Your task to perform on an android device: open app "Flipkart Online Shopping App" (install if not already installed) Image 0: 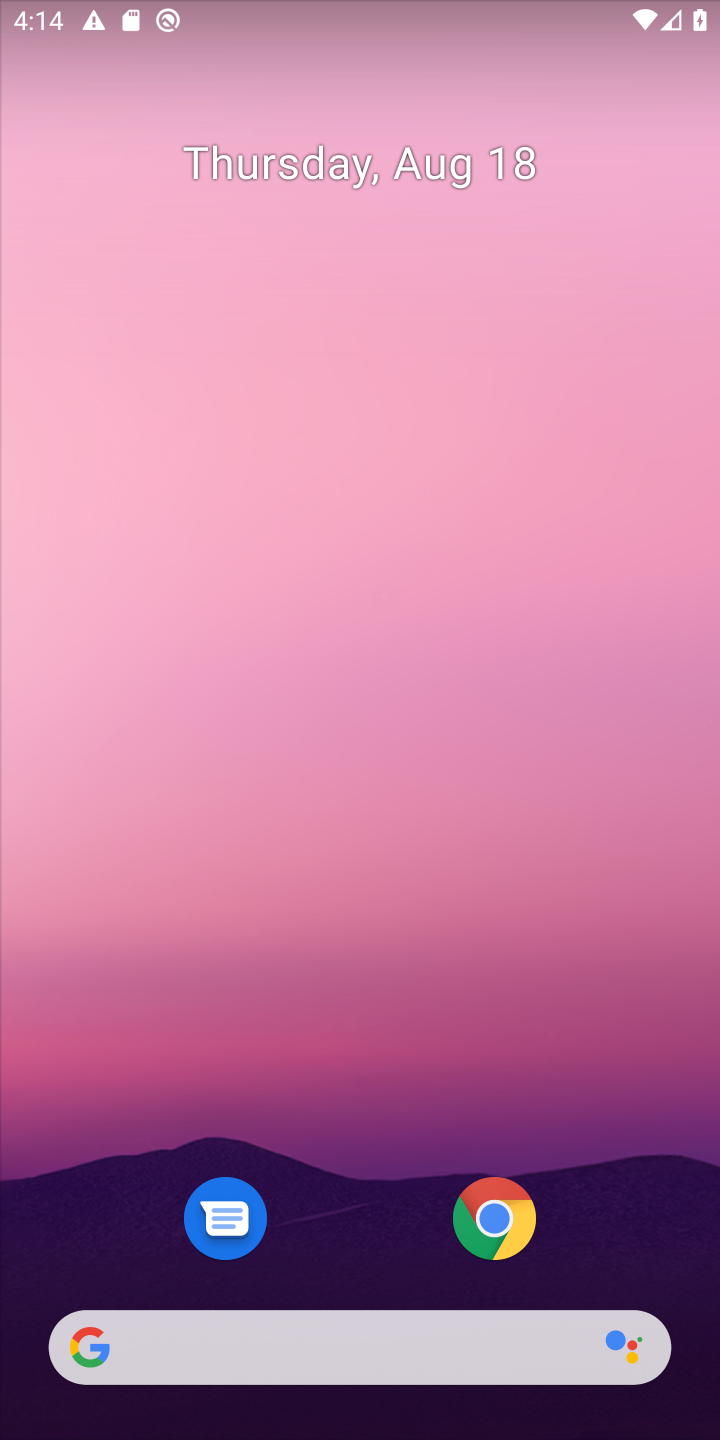
Step 0: drag from (332, 839) to (358, 334)
Your task to perform on an android device: open app "Flipkart Online Shopping App" (install if not already installed) Image 1: 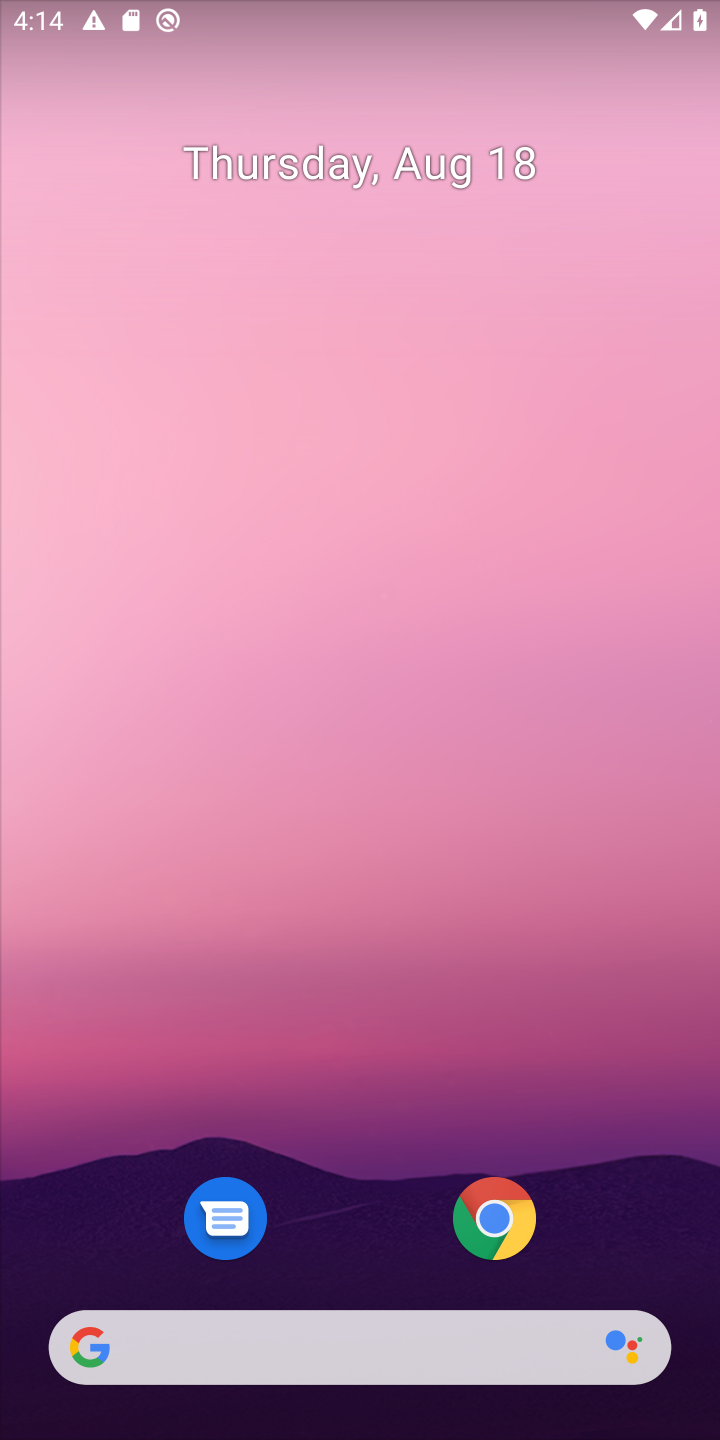
Step 1: drag from (402, 1169) to (425, 370)
Your task to perform on an android device: open app "Flipkart Online Shopping App" (install if not already installed) Image 2: 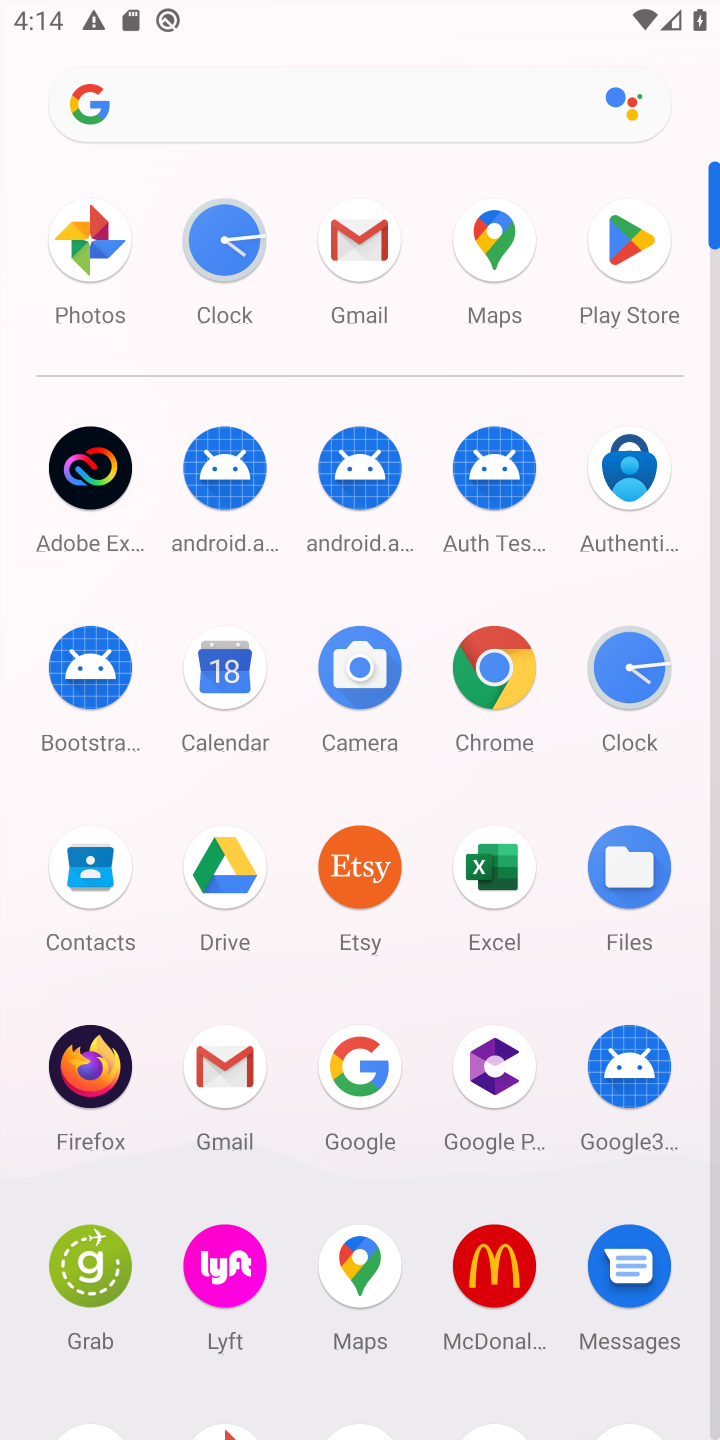
Step 2: click (621, 264)
Your task to perform on an android device: open app "Flipkart Online Shopping App" (install if not already installed) Image 3: 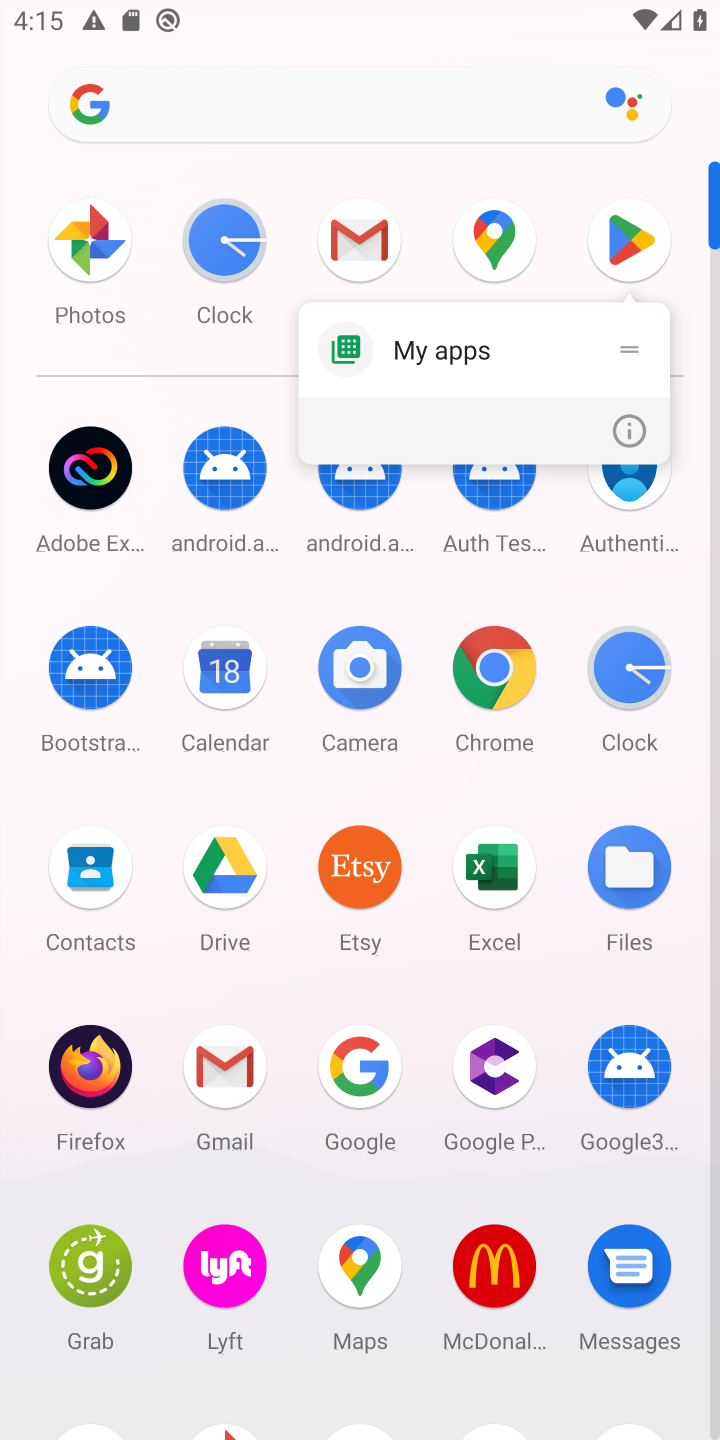
Step 3: click (623, 252)
Your task to perform on an android device: open app "Flipkart Online Shopping App" (install if not already installed) Image 4: 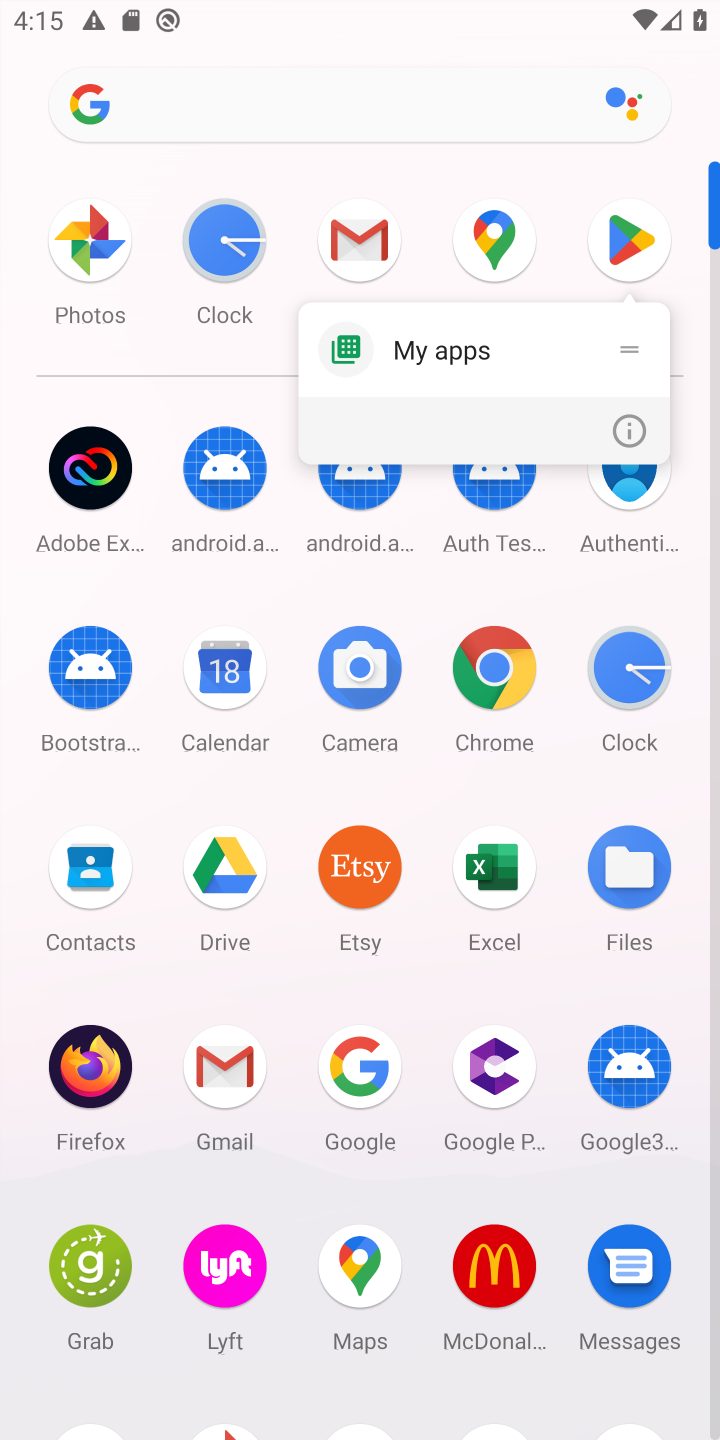
Step 4: click (623, 252)
Your task to perform on an android device: open app "Flipkart Online Shopping App" (install if not already installed) Image 5: 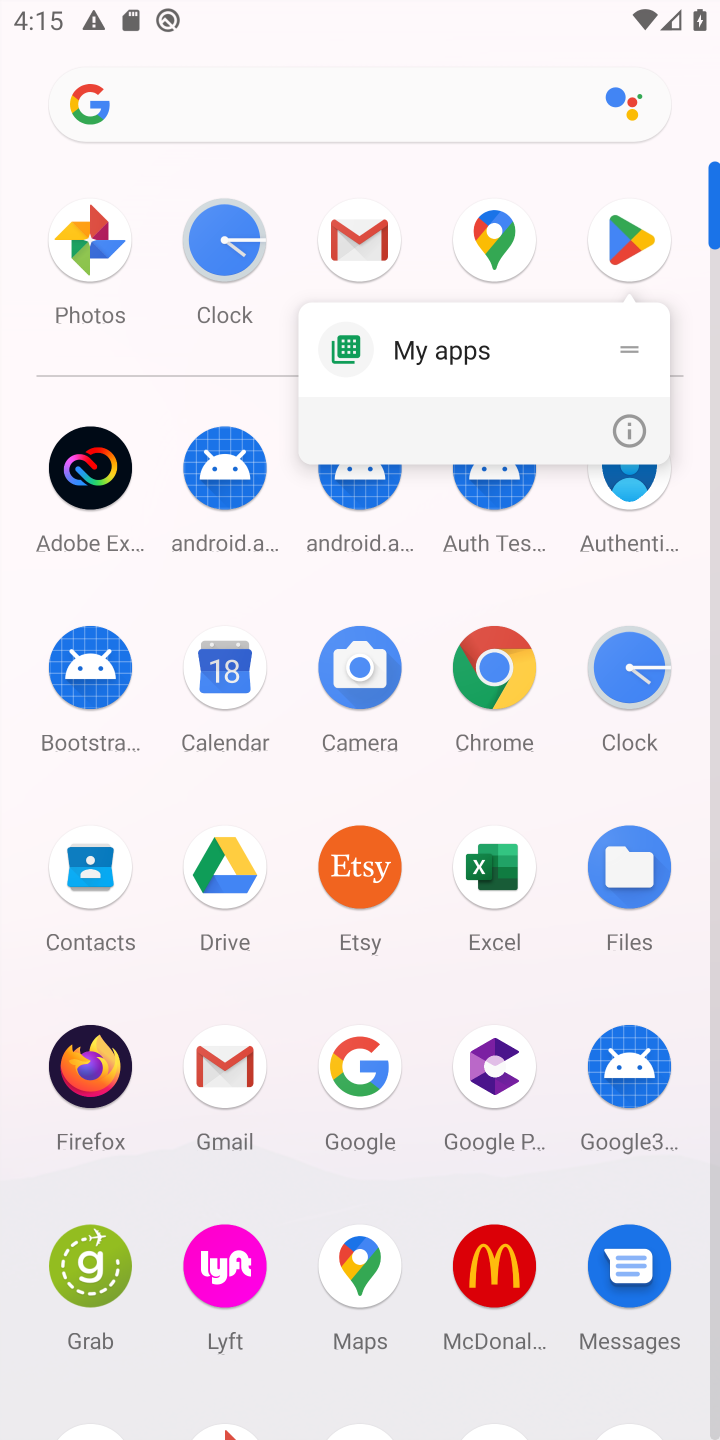
Step 5: click (644, 226)
Your task to perform on an android device: open app "Flipkart Online Shopping App" (install if not already installed) Image 6: 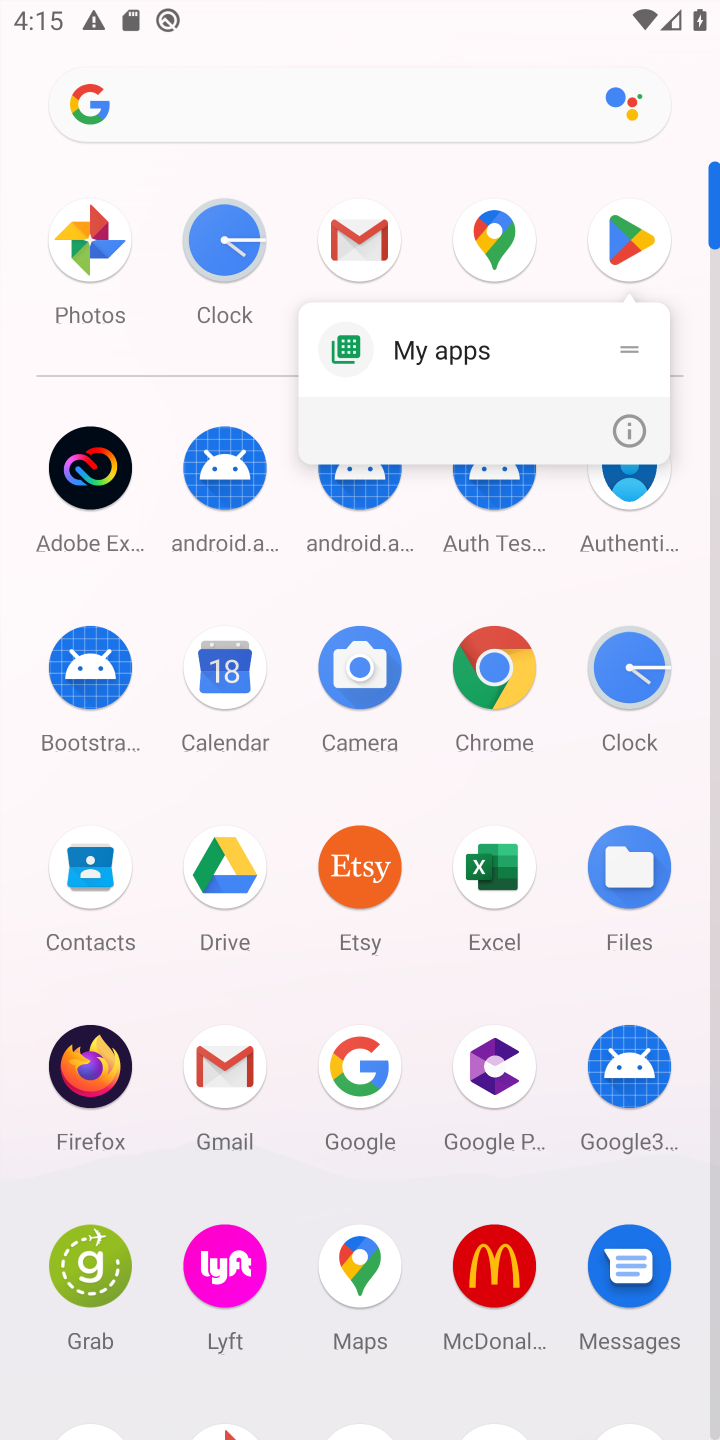
Step 6: click (644, 226)
Your task to perform on an android device: open app "Flipkart Online Shopping App" (install if not already installed) Image 7: 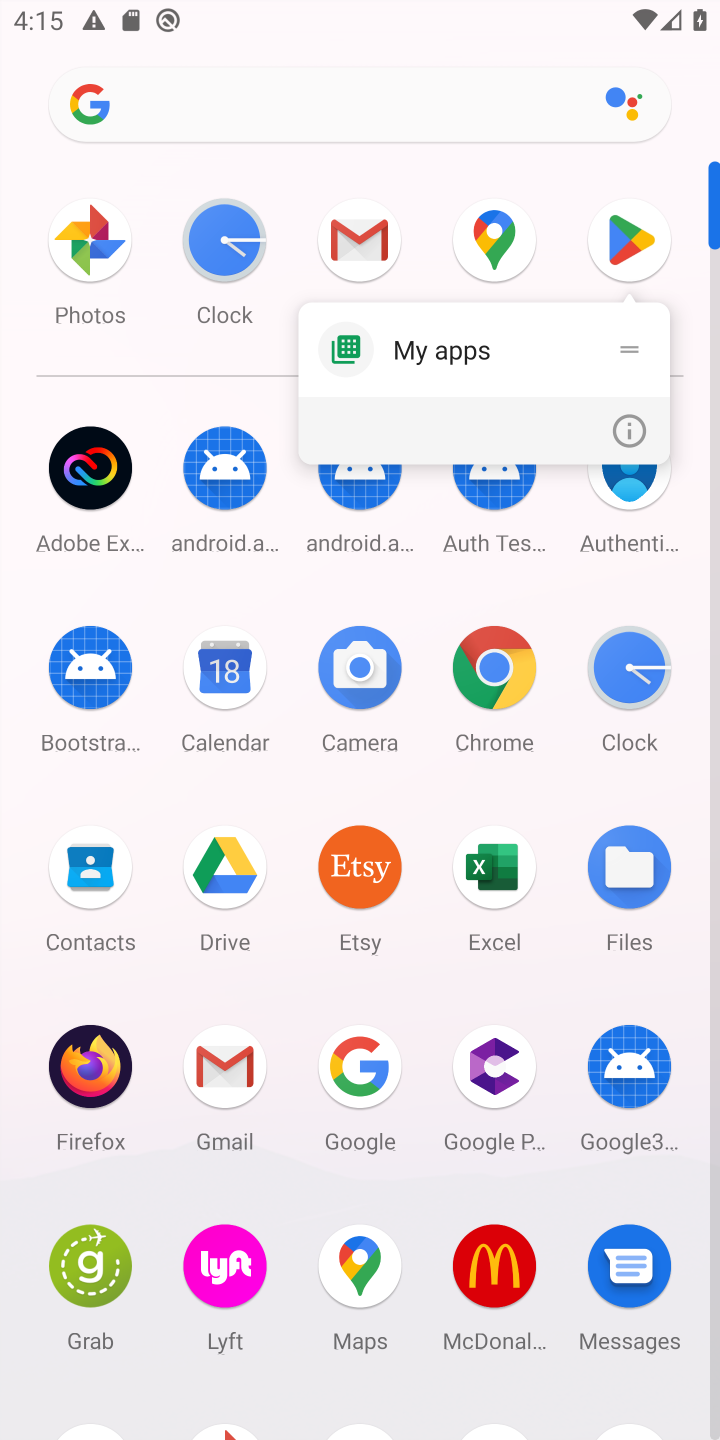
Step 7: click (635, 236)
Your task to perform on an android device: open app "Flipkart Online Shopping App" (install if not already installed) Image 8: 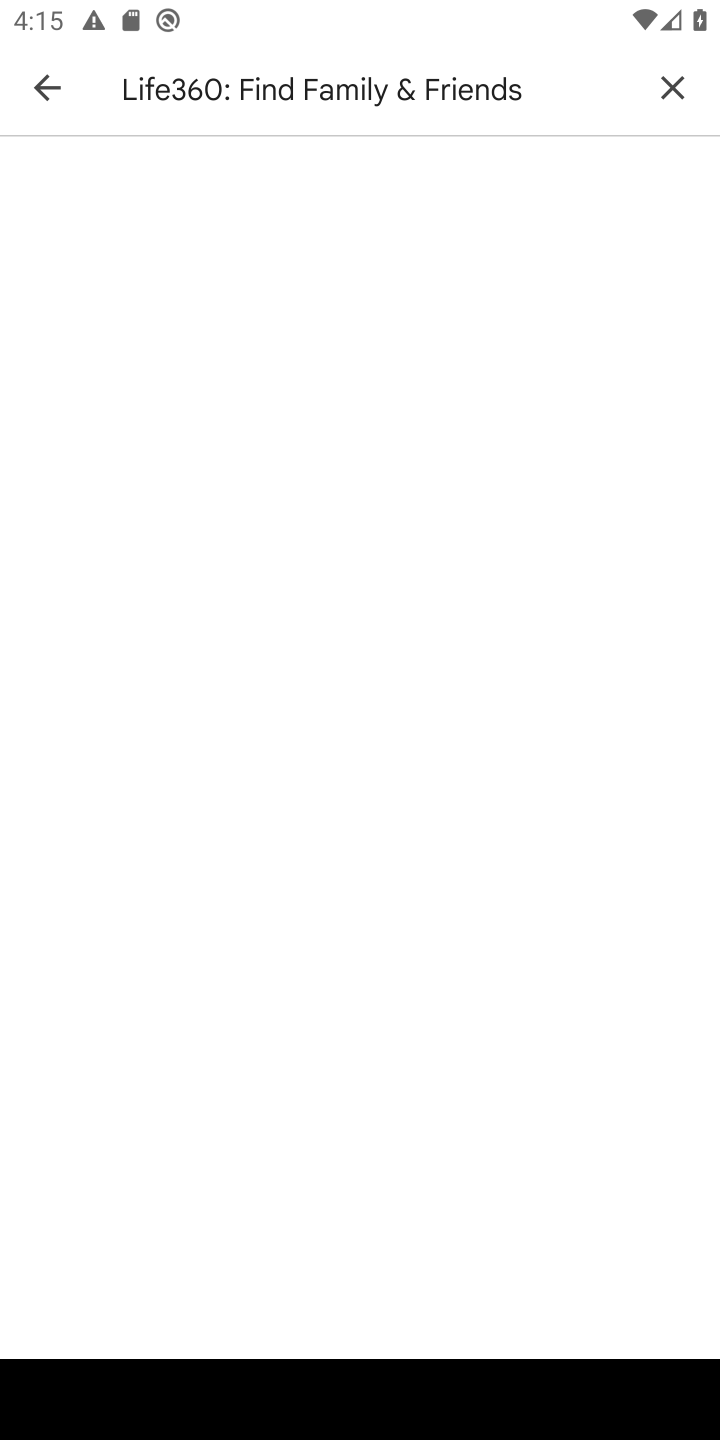
Step 8: click (666, 92)
Your task to perform on an android device: open app "Flipkart Online Shopping App" (install if not already installed) Image 9: 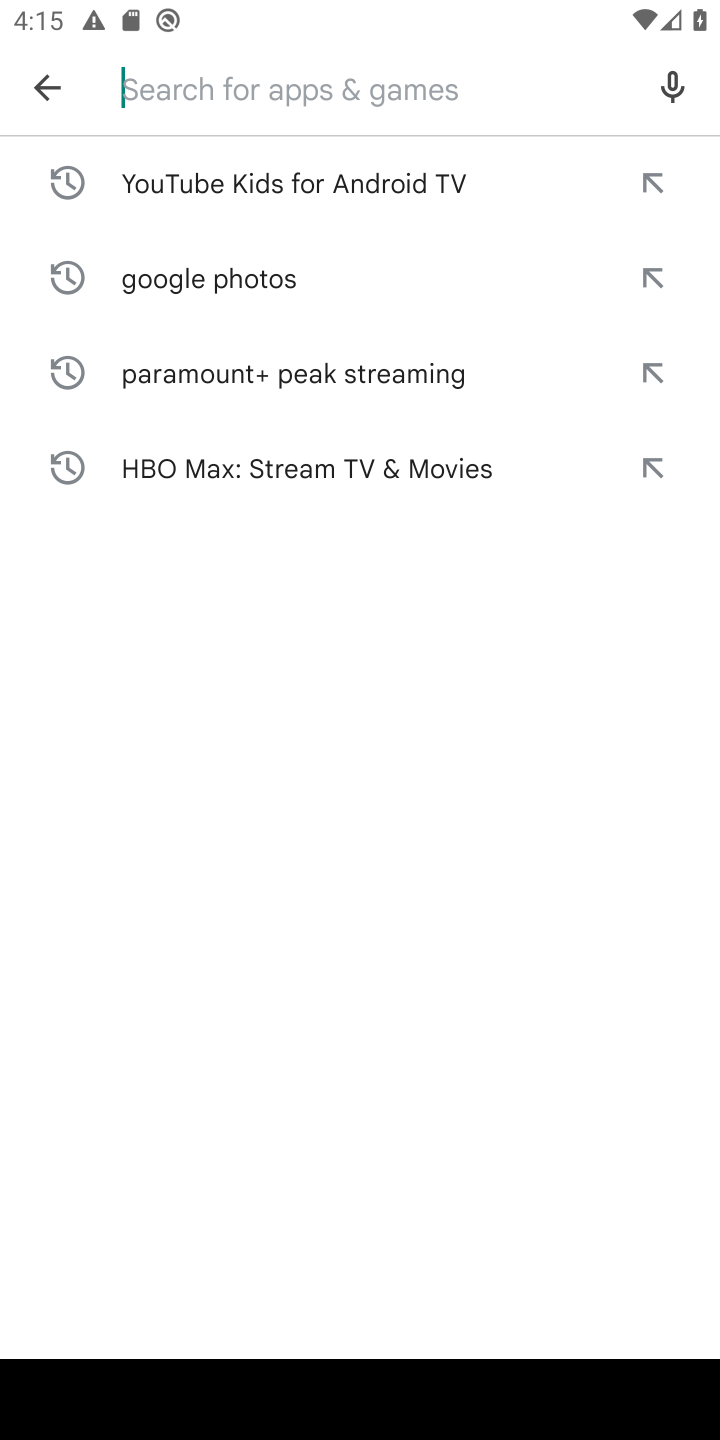
Step 9: type "Flipkart Online Shopping App"
Your task to perform on an android device: open app "Flipkart Online Shopping App" (install if not already installed) Image 10: 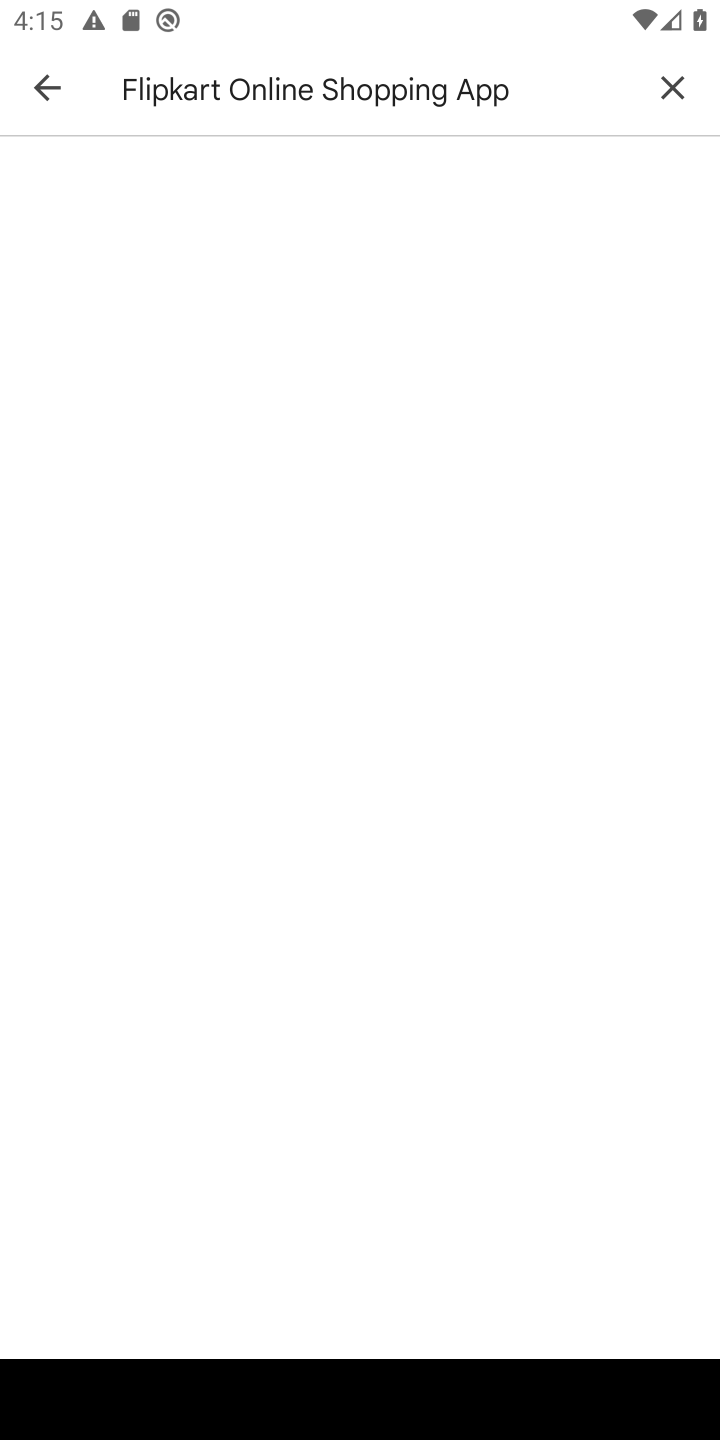
Step 10: task complete